Your task to perform on an android device: turn notification dots on Image 0: 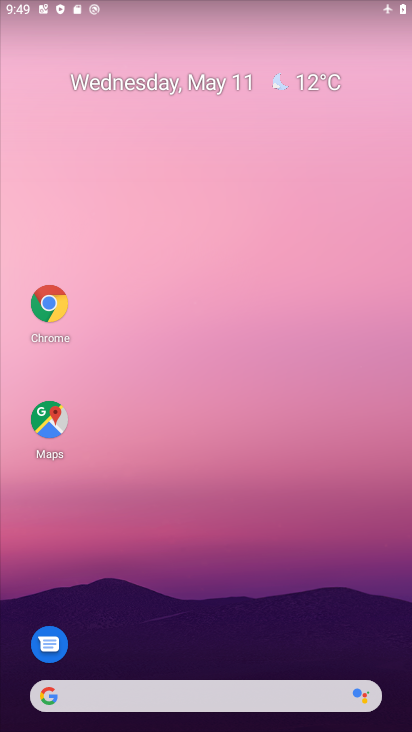
Step 0: drag from (202, 635) to (184, 120)
Your task to perform on an android device: turn notification dots on Image 1: 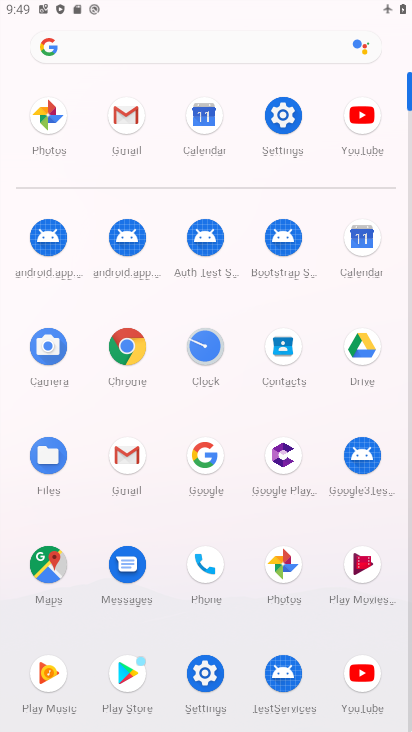
Step 1: click (289, 125)
Your task to perform on an android device: turn notification dots on Image 2: 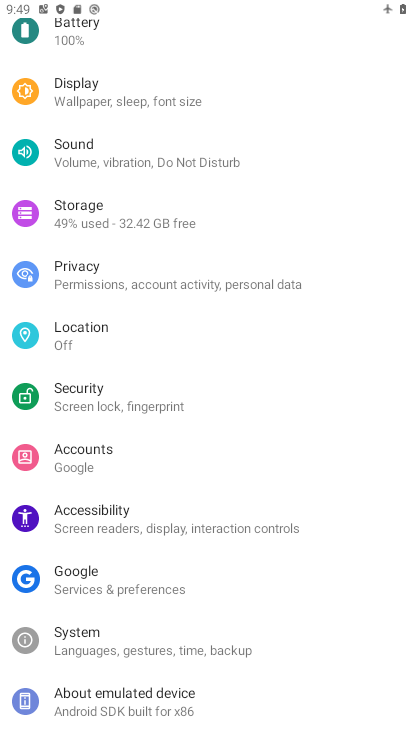
Step 2: drag from (289, 125) to (289, 485)
Your task to perform on an android device: turn notification dots on Image 3: 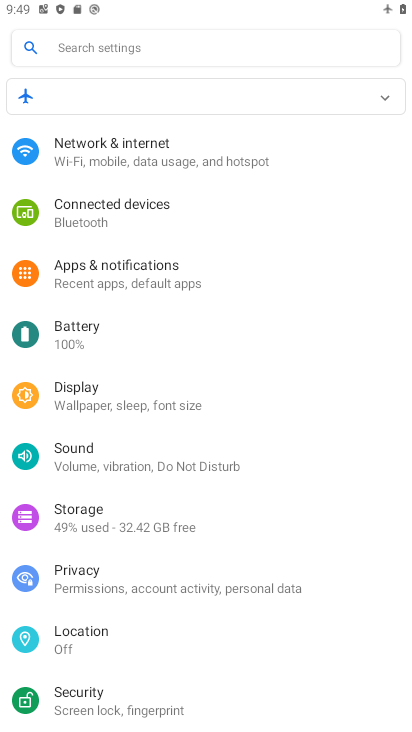
Step 3: click (198, 290)
Your task to perform on an android device: turn notification dots on Image 4: 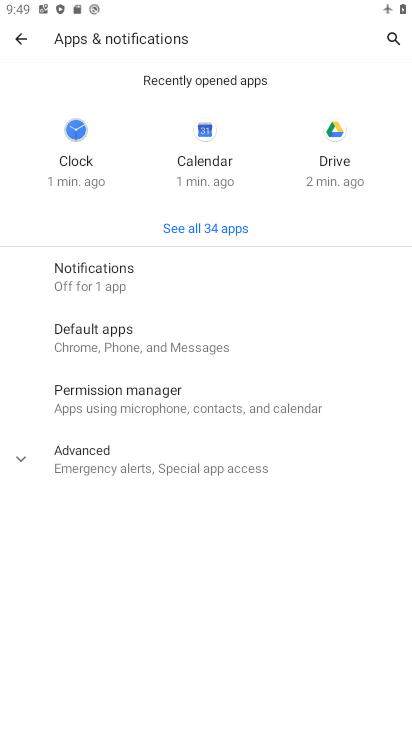
Step 4: click (198, 290)
Your task to perform on an android device: turn notification dots on Image 5: 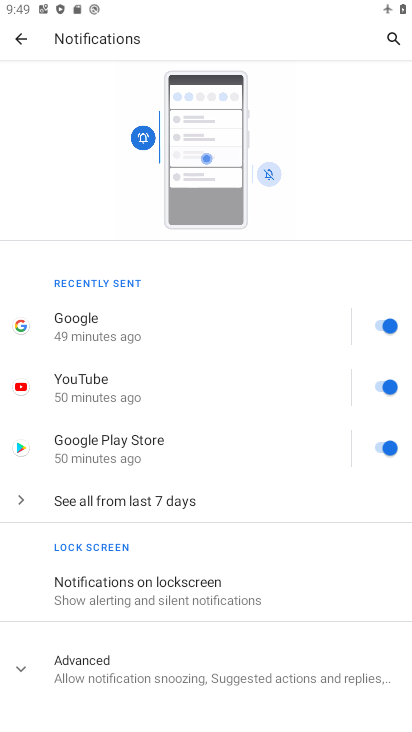
Step 5: click (159, 687)
Your task to perform on an android device: turn notification dots on Image 6: 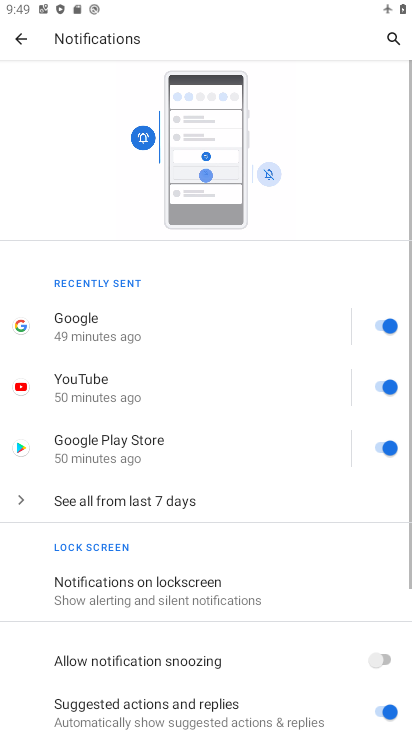
Step 6: task complete